Your task to perform on an android device: clear all cookies in the chrome app Image 0: 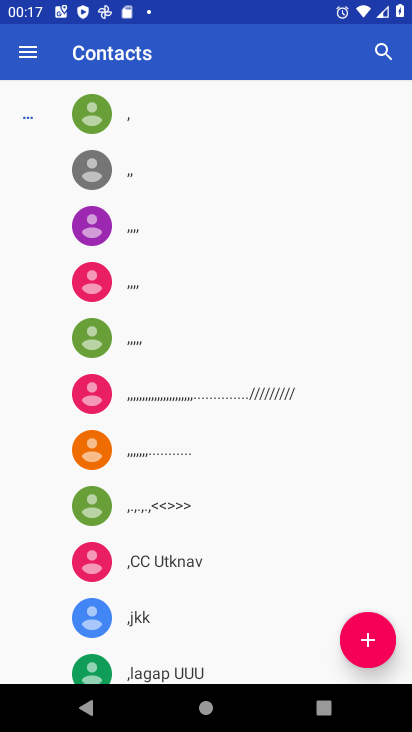
Step 0: press home button
Your task to perform on an android device: clear all cookies in the chrome app Image 1: 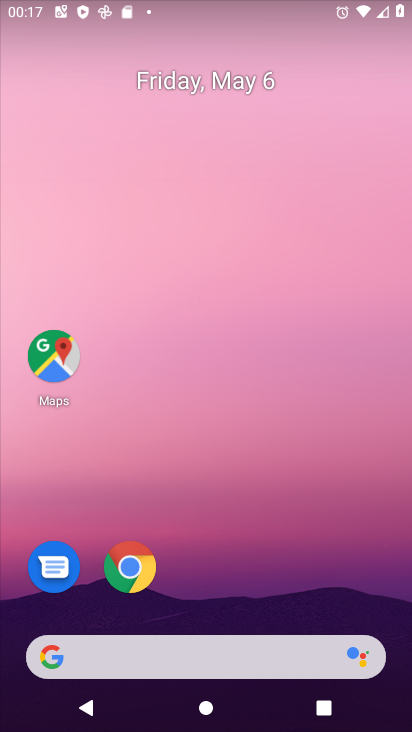
Step 1: click (146, 558)
Your task to perform on an android device: clear all cookies in the chrome app Image 2: 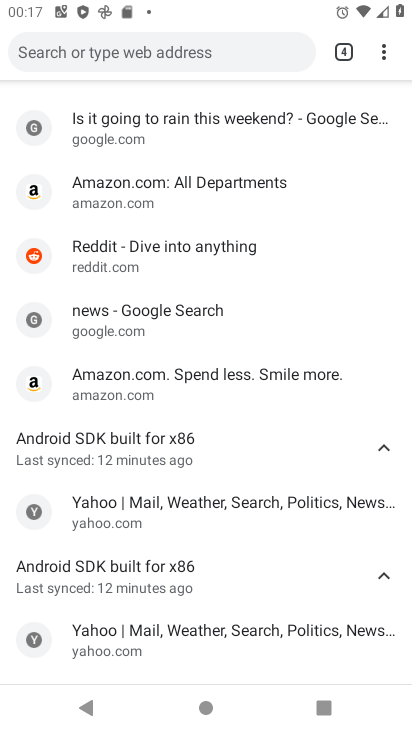
Step 2: click (381, 46)
Your task to perform on an android device: clear all cookies in the chrome app Image 3: 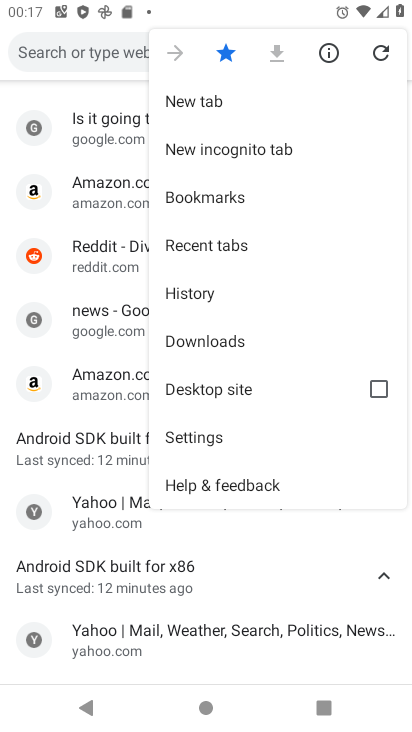
Step 3: click (181, 298)
Your task to perform on an android device: clear all cookies in the chrome app Image 4: 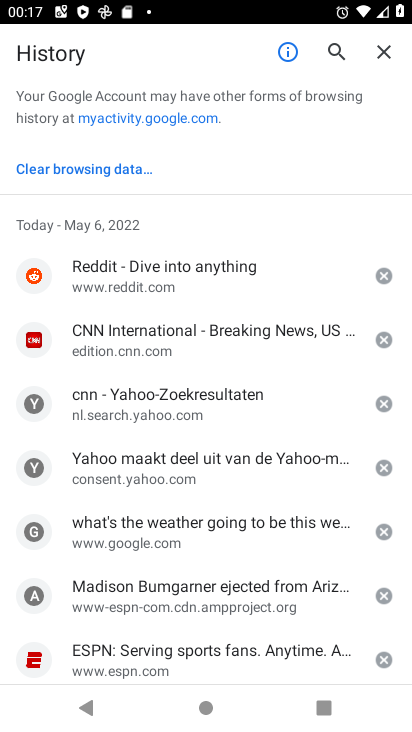
Step 4: click (82, 164)
Your task to perform on an android device: clear all cookies in the chrome app Image 5: 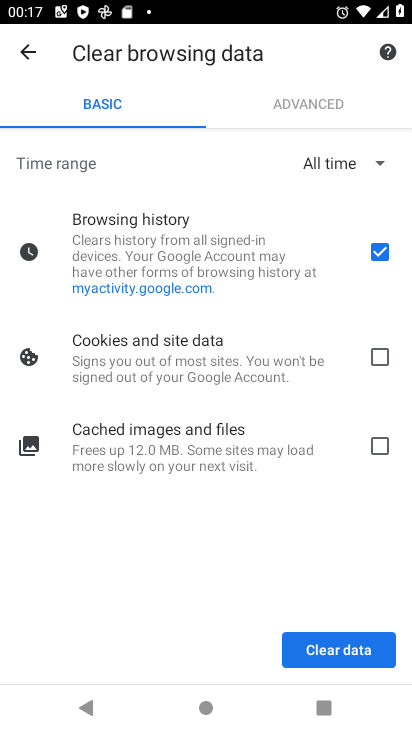
Step 5: click (371, 351)
Your task to perform on an android device: clear all cookies in the chrome app Image 6: 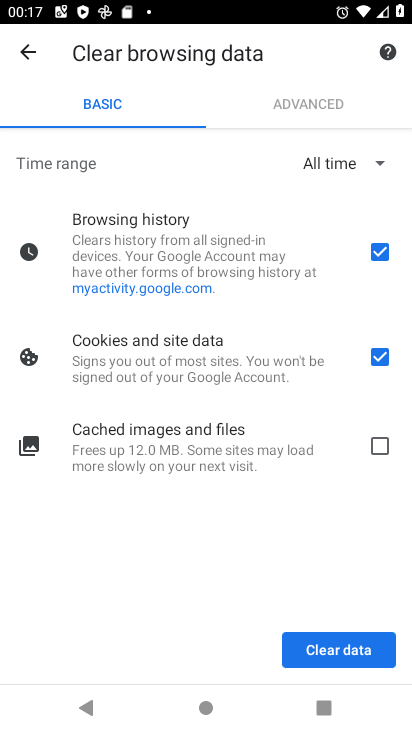
Step 6: click (322, 642)
Your task to perform on an android device: clear all cookies in the chrome app Image 7: 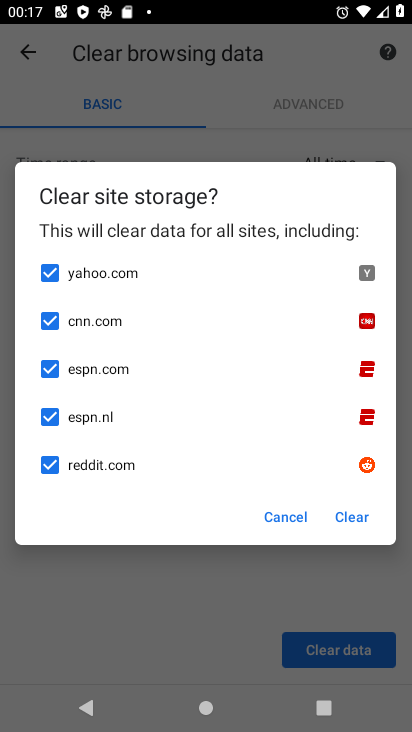
Step 7: click (334, 515)
Your task to perform on an android device: clear all cookies in the chrome app Image 8: 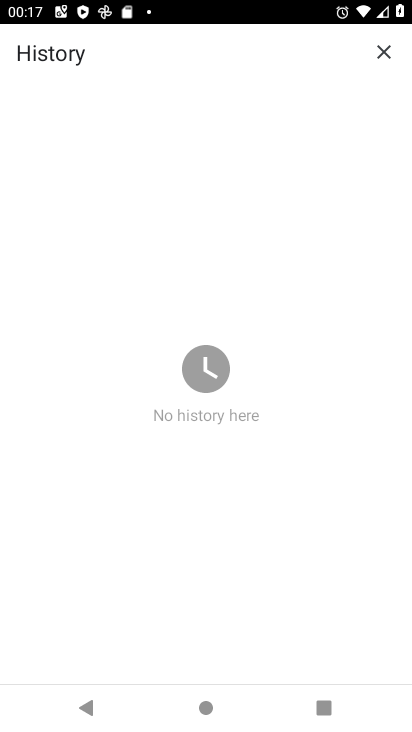
Step 8: task complete